Your task to perform on an android device: delete a single message in the gmail app Image 0: 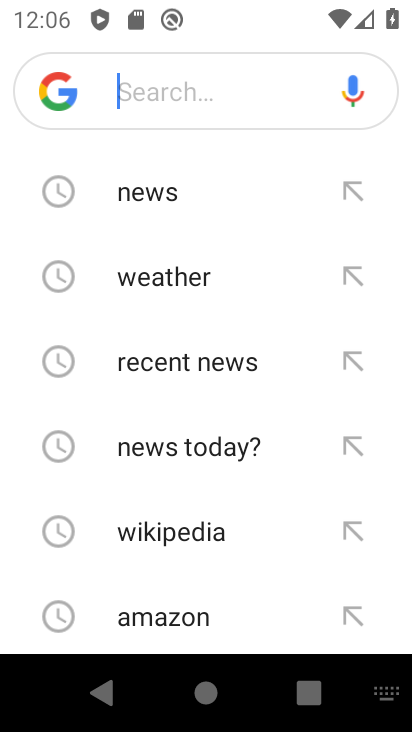
Step 0: press home button
Your task to perform on an android device: delete a single message in the gmail app Image 1: 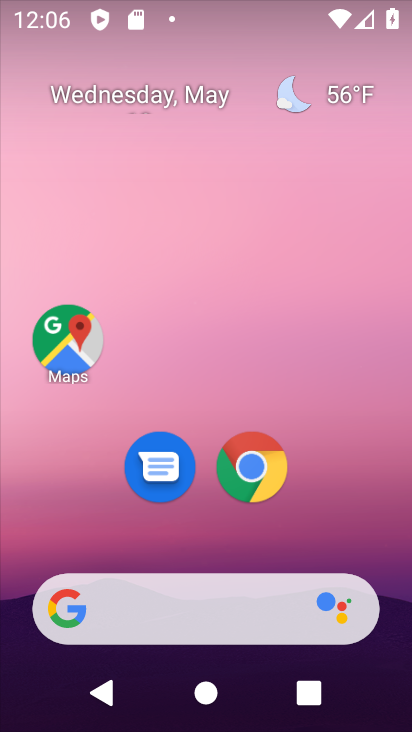
Step 1: drag from (201, 538) to (278, 125)
Your task to perform on an android device: delete a single message in the gmail app Image 2: 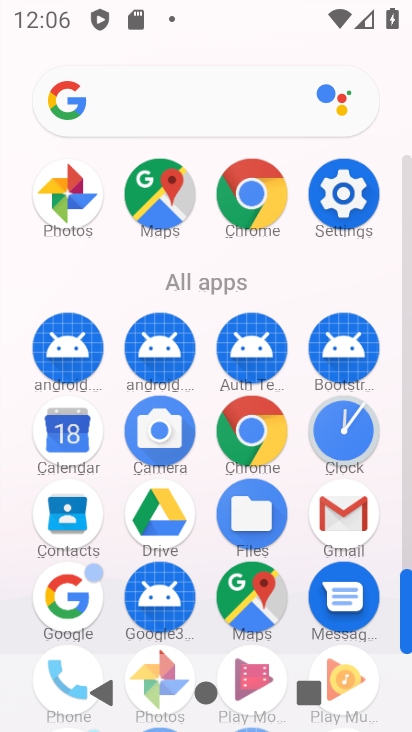
Step 2: click (340, 515)
Your task to perform on an android device: delete a single message in the gmail app Image 3: 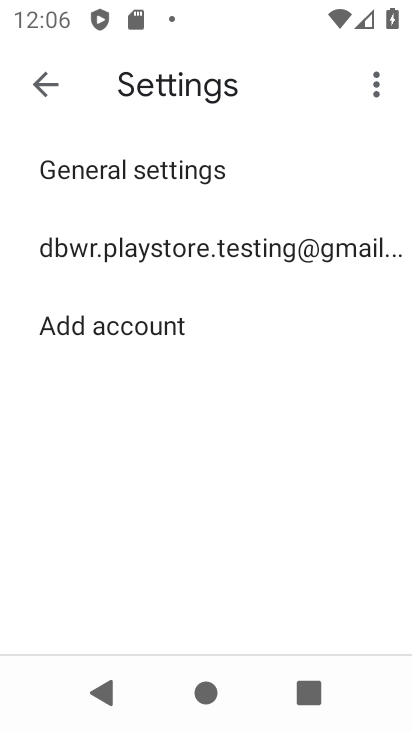
Step 3: click (44, 84)
Your task to perform on an android device: delete a single message in the gmail app Image 4: 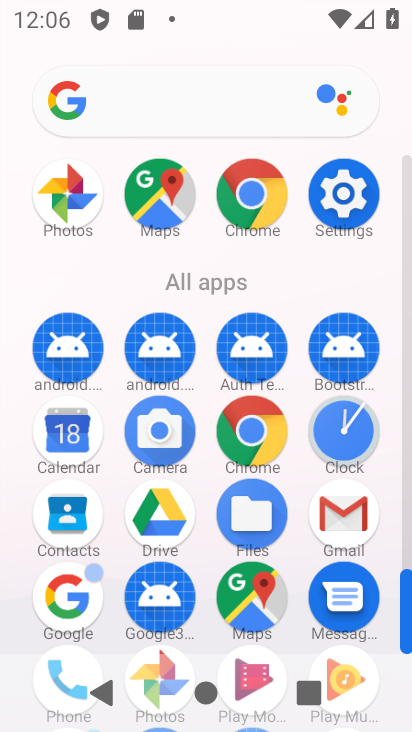
Step 4: click (351, 516)
Your task to perform on an android device: delete a single message in the gmail app Image 5: 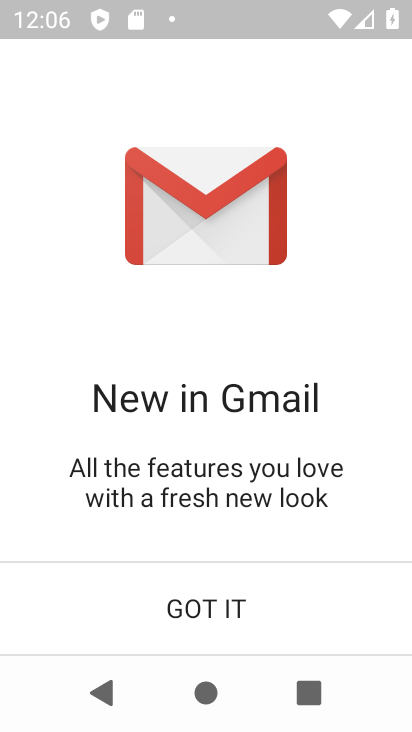
Step 5: click (265, 603)
Your task to perform on an android device: delete a single message in the gmail app Image 6: 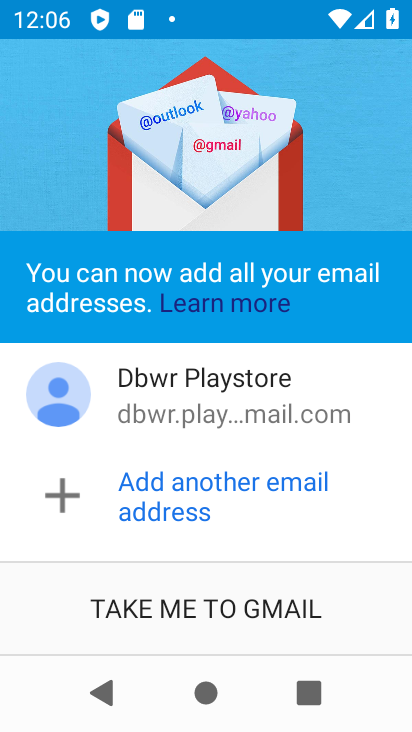
Step 6: click (265, 603)
Your task to perform on an android device: delete a single message in the gmail app Image 7: 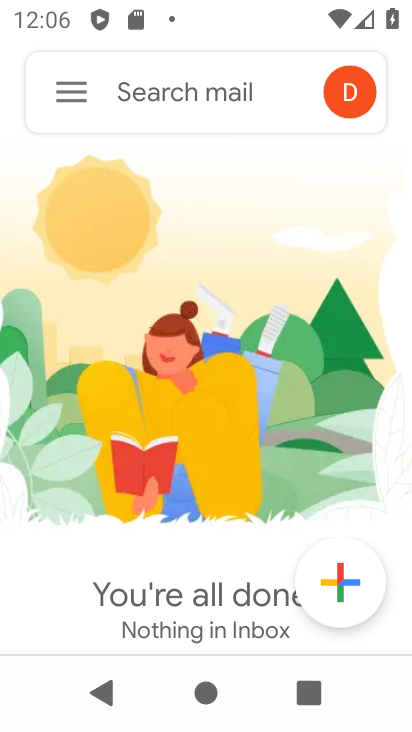
Step 7: click (66, 78)
Your task to perform on an android device: delete a single message in the gmail app Image 8: 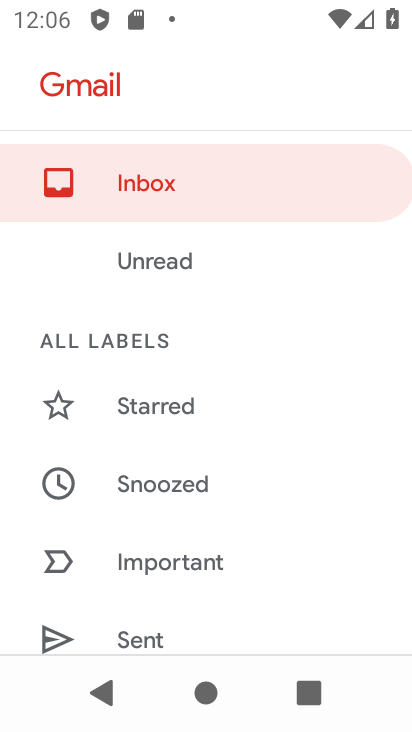
Step 8: drag from (163, 500) to (205, 127)
Your task to perform on an android device: delete a single message in the gmail app Image 9: 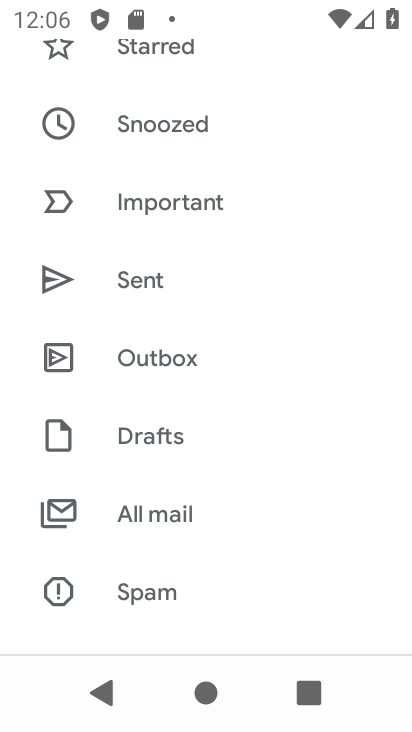
Step 9: click (167, 518)
Your task to perform on an android device: delete a single message in the gmail app Image 10: 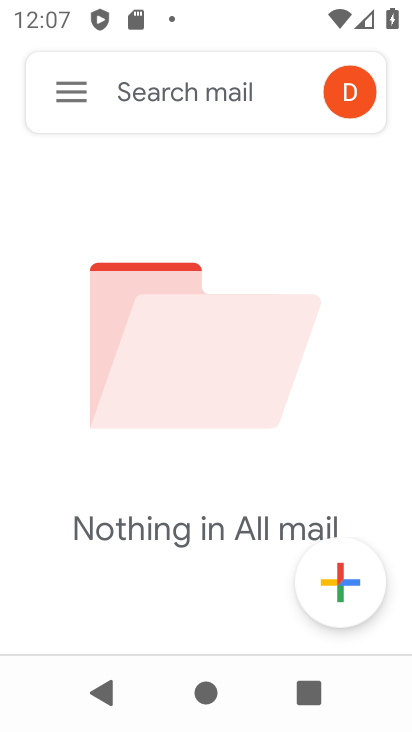
Step 10: task complete